Your task to perform on an android device: add a contact in the contacts app Image 0: 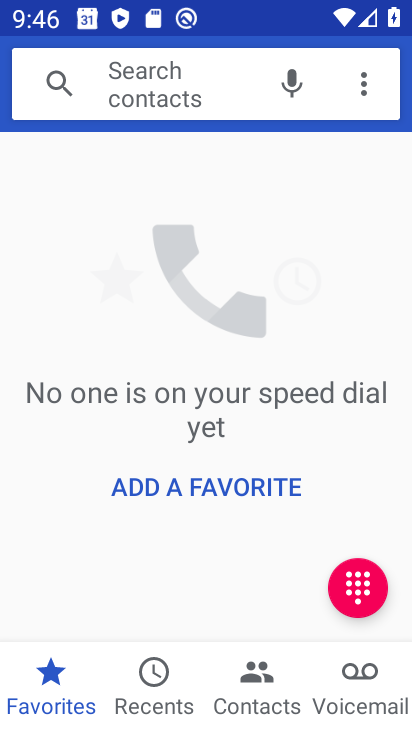
Step 0: press back button
Your task to perform on an android device: add a contact in the contacts app Image 1: 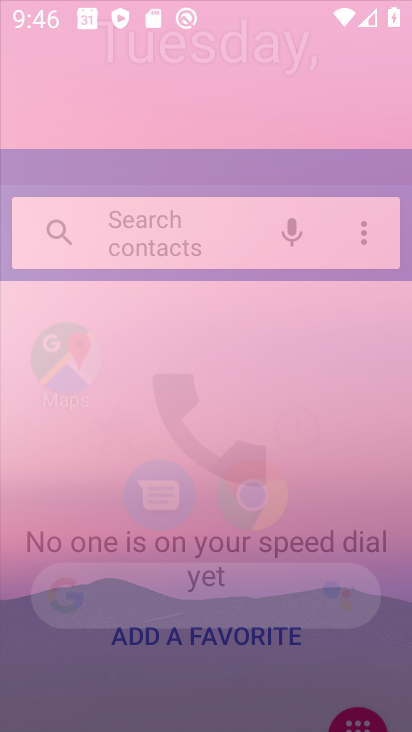
Step 1: press back button
Your task to perform on an android device: add a contact in the contacts app Image 2: 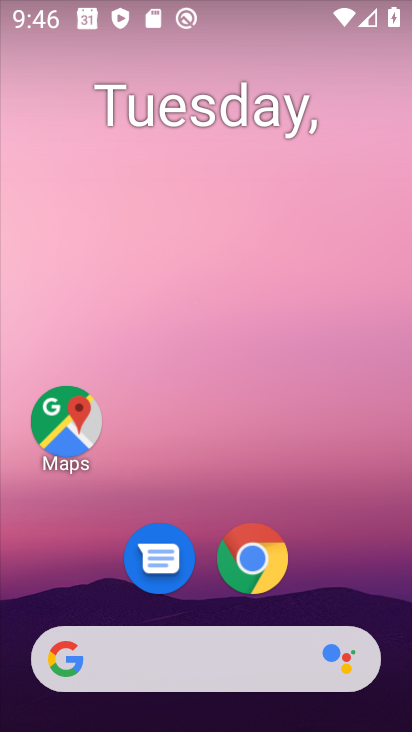
Step 2: drag from (303, 525) to (77, 115)
Your task to perform on an android device: add a contact in the contacts app Image 3: 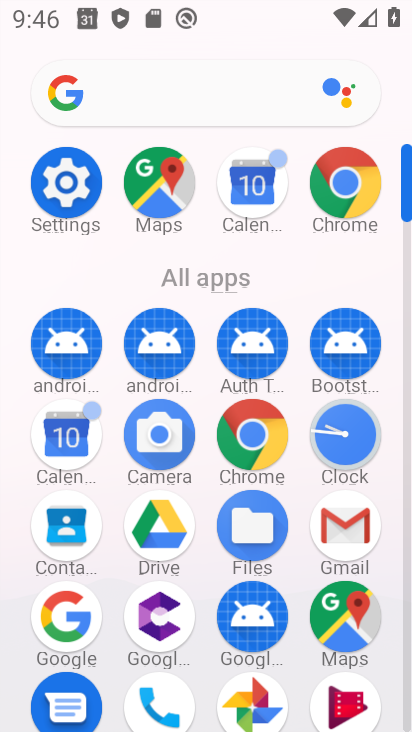
Step 3: drag from (193, 529) to (173, 83)
Your task to perform on an android device: add a contact in the contacts app Image 4: 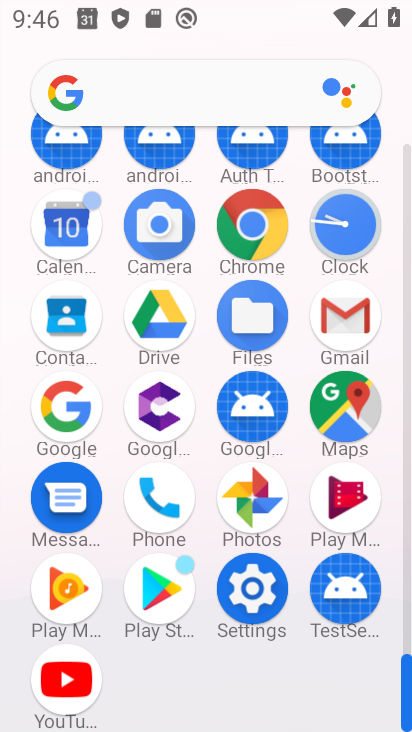
Step 4: click (61, 319)
Your task to perform on an android device: add a contact in the contacts app Image 5: 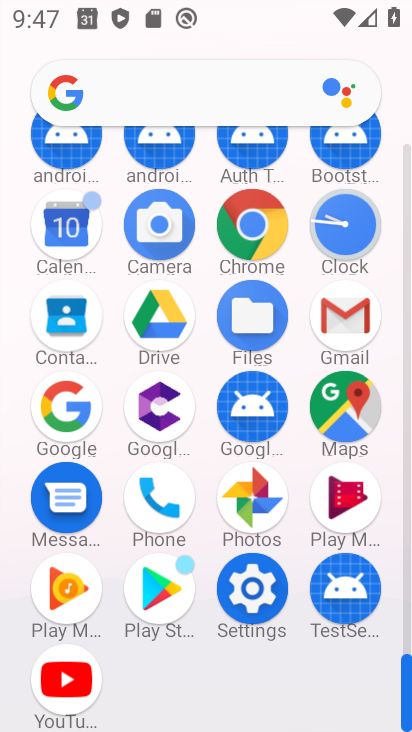
Step 5: click (61, 319)
Your task to perform on an android device: add a contact in the contacts app Image 6: 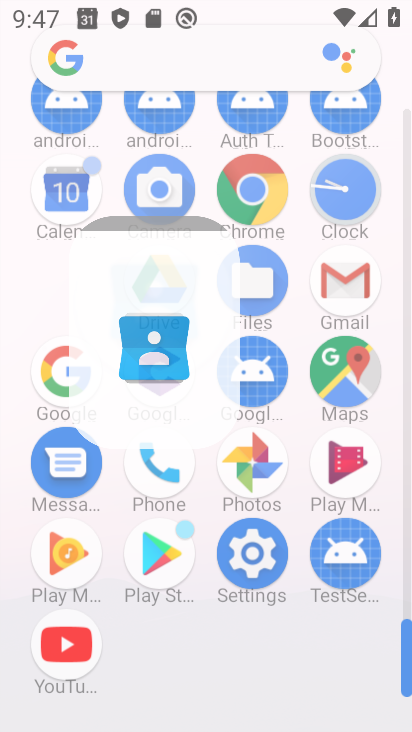
Step 6: click (61, 319)
Your task to perform on an android device: add a contact in the contacts app Image 7: 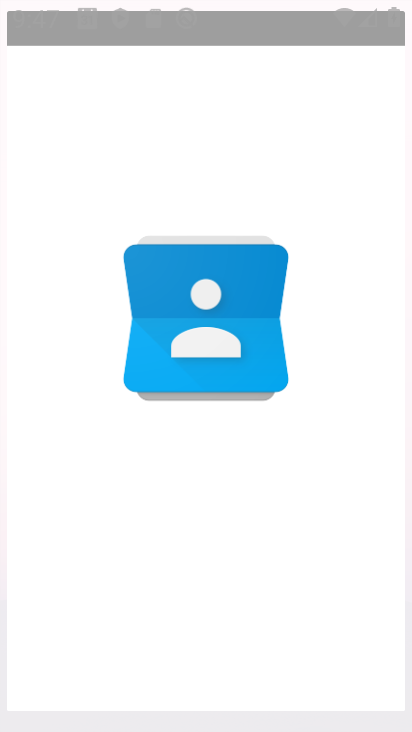
Step 7: click (61, 319)
Your task to perform on an android device: add a contact in the contacts app Image 8: 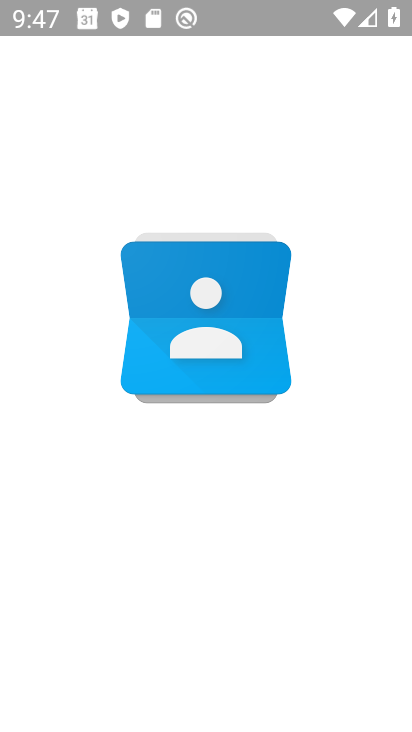
Step 8: click (61, 319)
Your task to perform on an android device: add a contact in the contacts app Image 9: 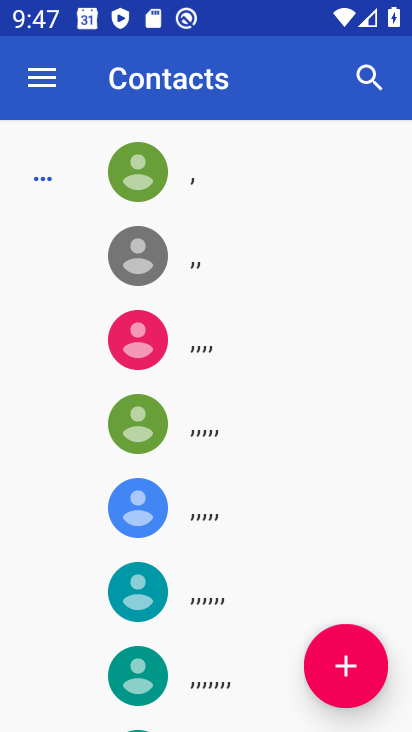
Step 9: click (339, 666)
Your task to perform on an android device: add a contact in the contacts app Image 10: 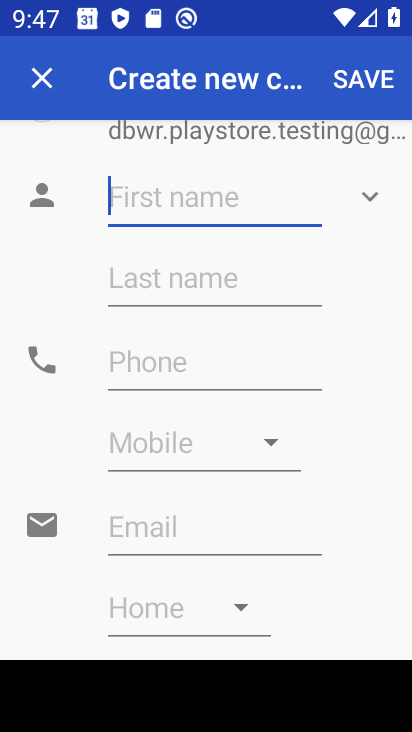
Step 10: type "kajal"
Your task to perform on an android device: add a contact in the contacts app Image 11: 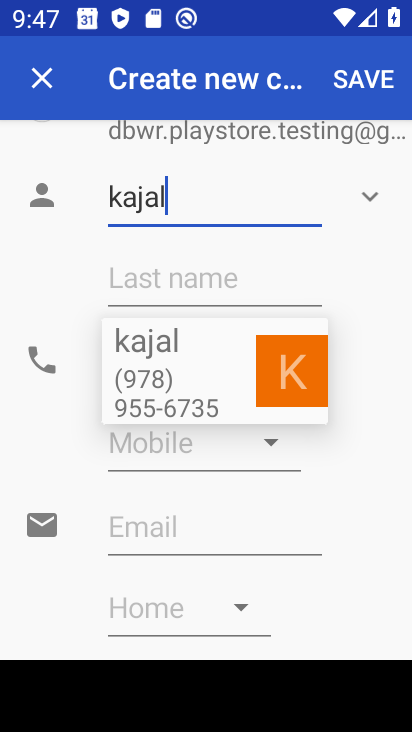
Step 11: click (351, 462)
Your task to perform on an android device: add a contact in the contacts app Image 12: 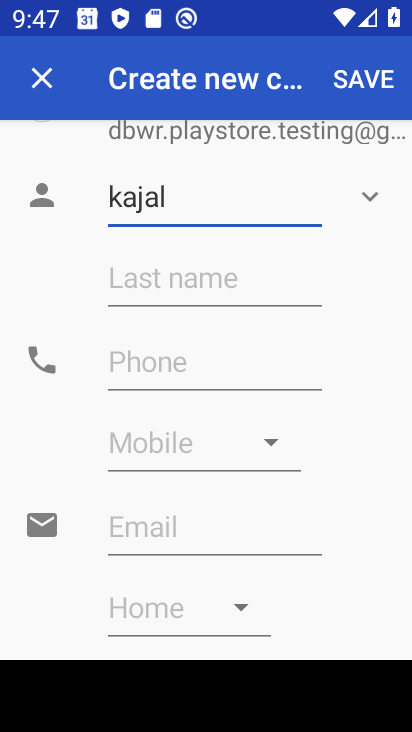
Step 12: click (62, 384)
Your task to perform on an android device: add a contact in the contacts app Image 13: 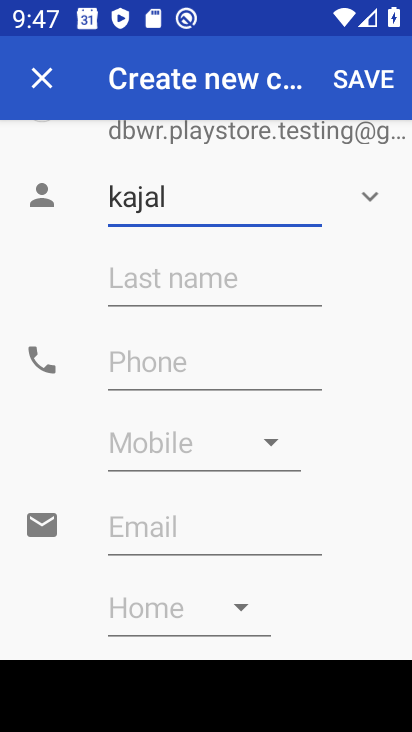
Step 13: click (135, 364)
Your task to perform on an android device: add a contact in the contacts app Image 14: 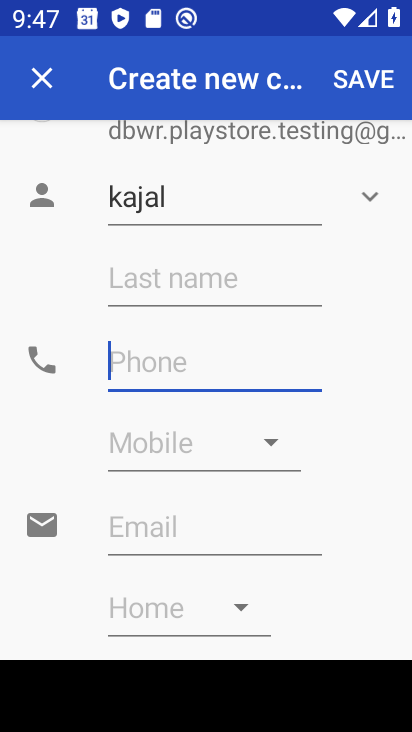
Step 14: type "978987565433"
Your task to perform on an android device: add a contact in the contacts app Image 15: 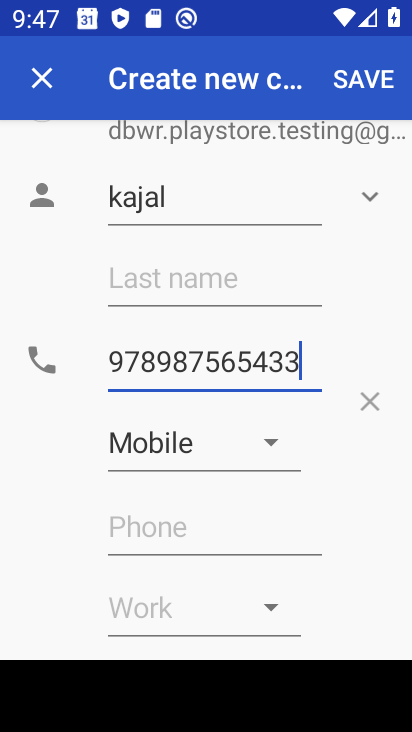
Step 15: click (359, 80)
Your task to perform on an android device: add a contact in the contacts app Image 16: 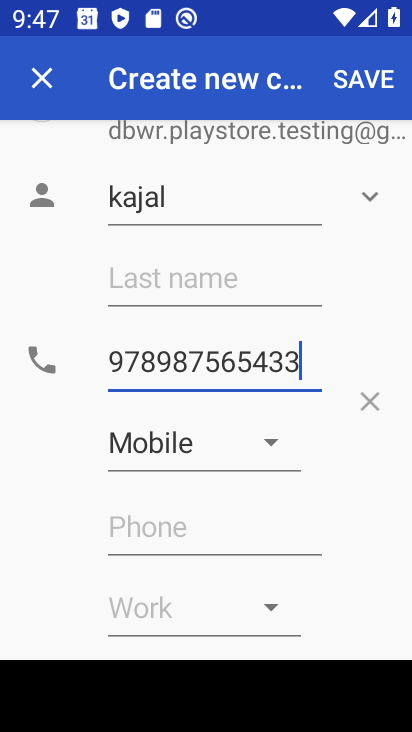
Step 16: click (359, 80)
Your task to perform on an android device: add a contact in the contacts app Image 17: 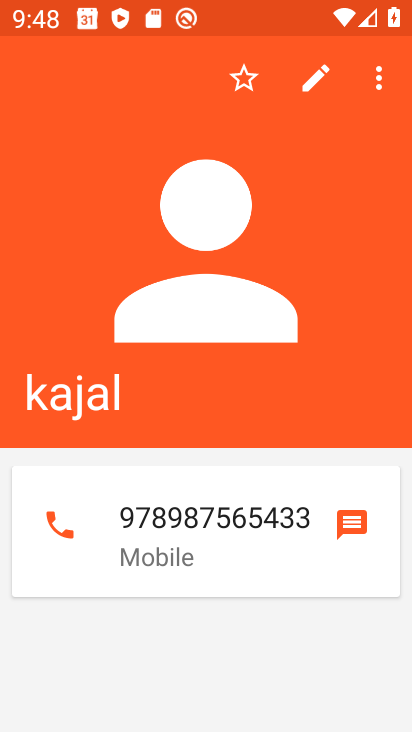
Step 17: task complete